Your task to perform on an android device: Open Android settings Image 0: 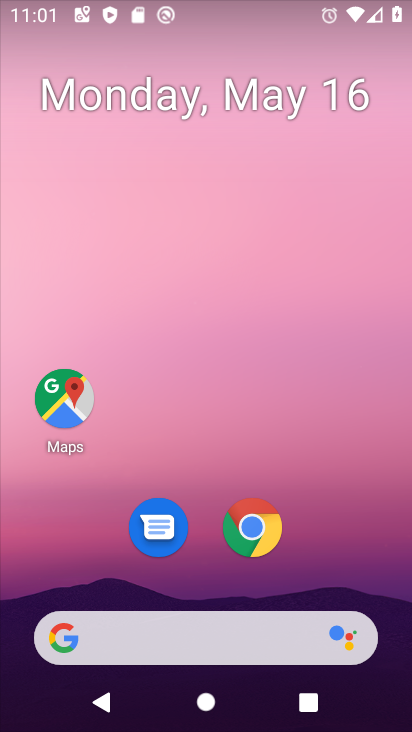
Step 0: press home button
Your task to perform on an android device: Open Android settings Image 1: 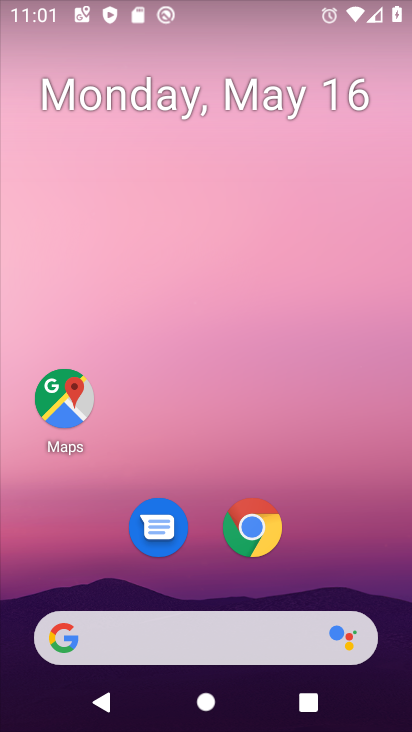
Step 1: drag from (311, 572) to (308, 2)
Your task to perform on an android device: Open Android settings Image 2: 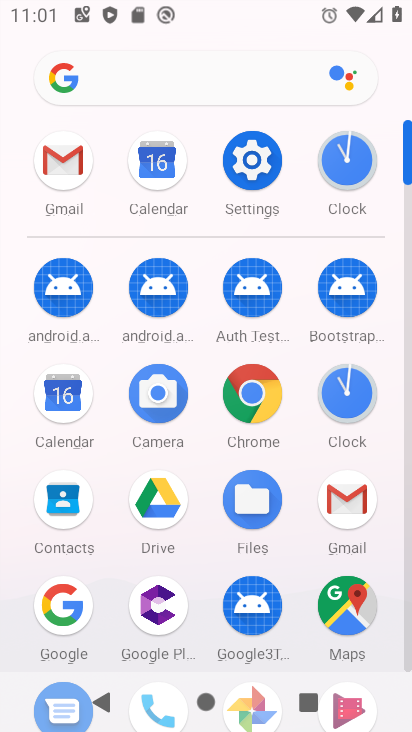
Step 2: click (242, 150)
Your task to perform on an android device: Open Android settings Image 3: 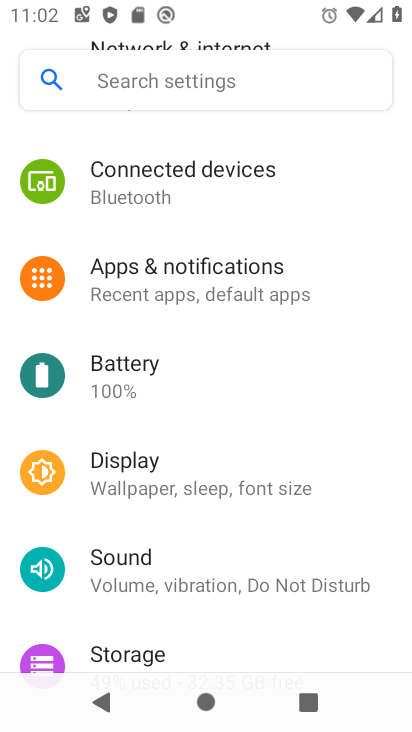
Step 3: task complete